Your task to perform on an android device: add a contact in the contacts app Image 0: 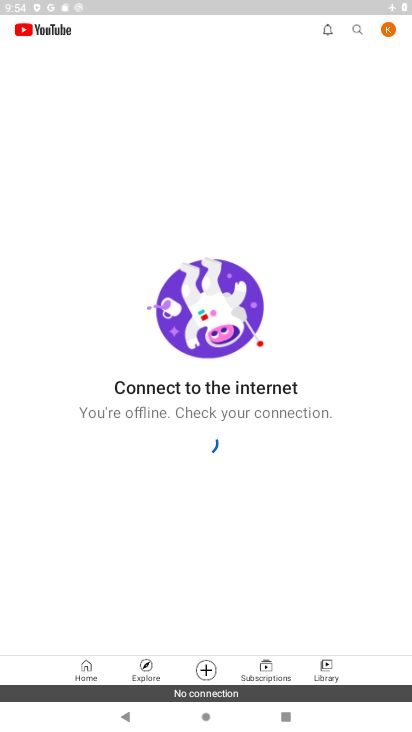
Step 0: click (277, 631)
Your task to perform on an android device: add a contact in the contacts app Image 1: 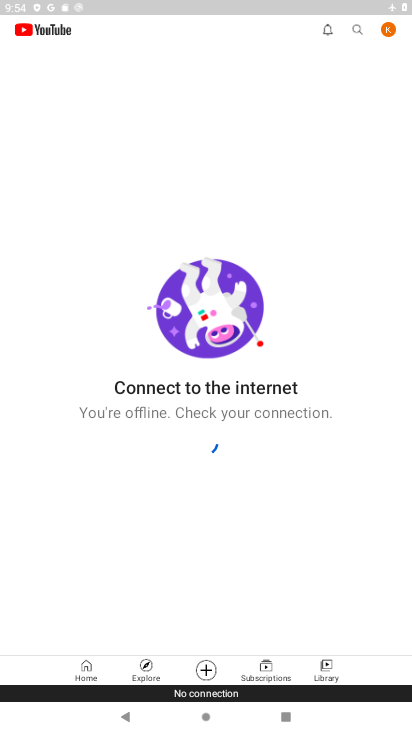
Step 1: press back button
Your task to perform on an android device: add a contact in the contacts app Image 2: 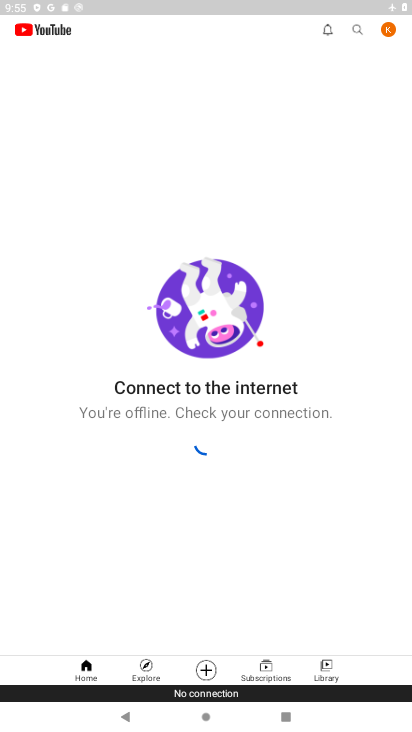
Step 2: press back button
Your task to perform on an android device: add a contact in the contacts app Image 3: 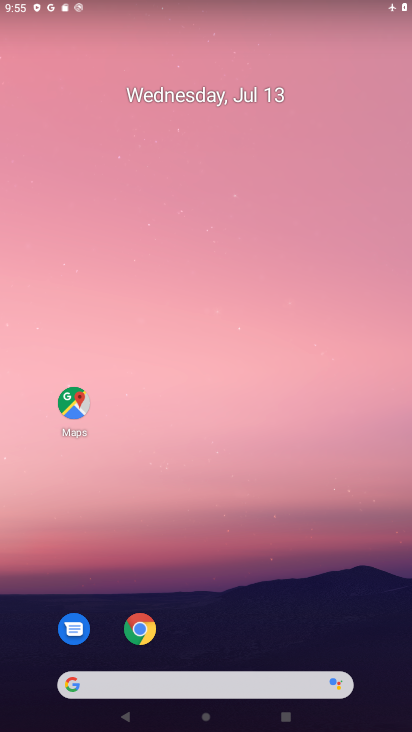
Step 3: drag from (274, 632) to (272, 78)
Your task to perform on an android device: add a contact in the contacts app Image 4: 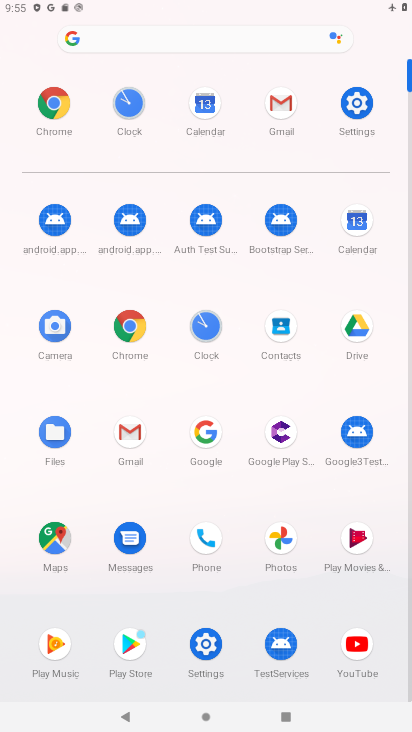
Step 4: click (351, 231)
Your task to perform on an android device: add a contact in the contacts app Image 5: 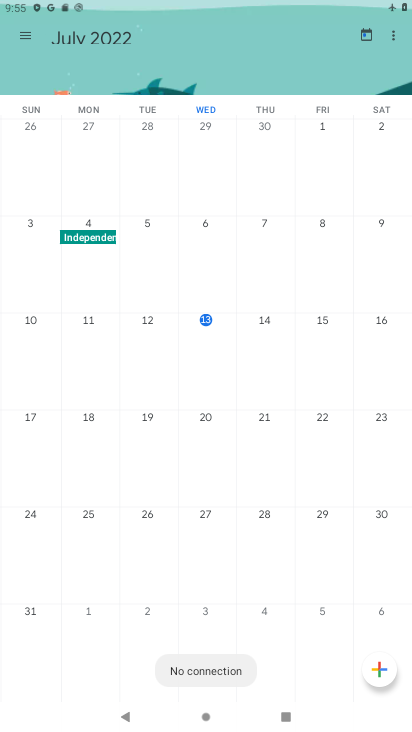
Step 5: press back button
Your task to perform on an android device: add a contact in the contacts app Image 6: 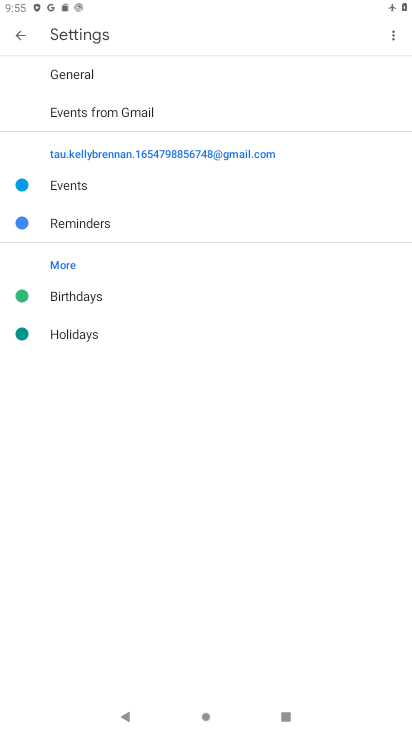
Step 6: press back button
Your task to perform on an android device: add a contact in the contacts app Image 7: 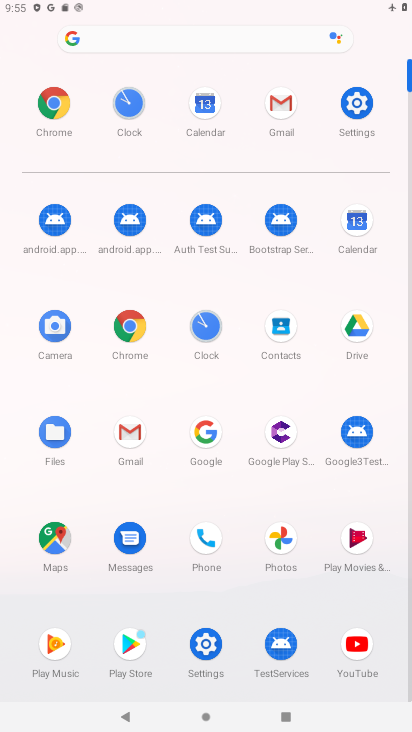
Step 7: click (267, 331)
Your task to perform on an android device: add a contact in the contacts app Image 8: 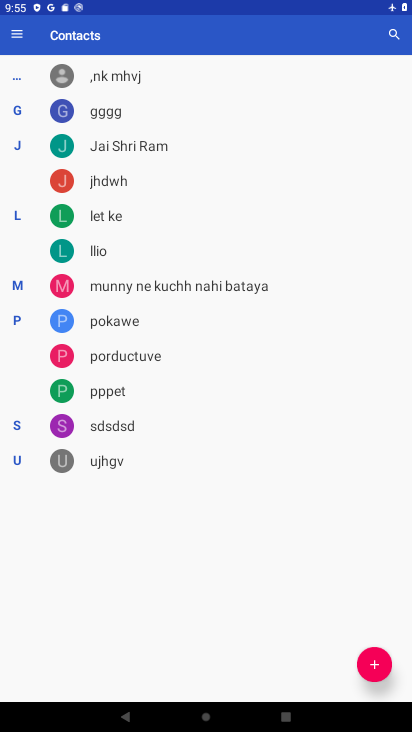
Step 8: click (371, 651)
Your task to perform on an android device: add a contact in the contacts app Image 9: 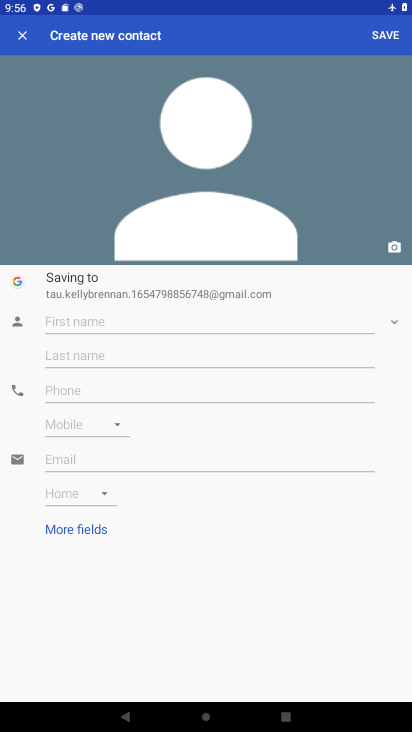
Step 9: click (197, 309)
Your task to perform on an android device: add a contact in the contacts app Image 10: 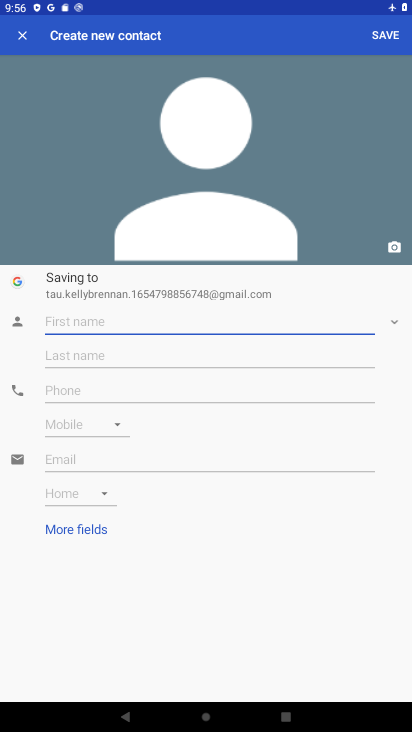
Step 10: click (206, 312)
Your task to perform on an android device: add a contact in the contacts app Image 11: 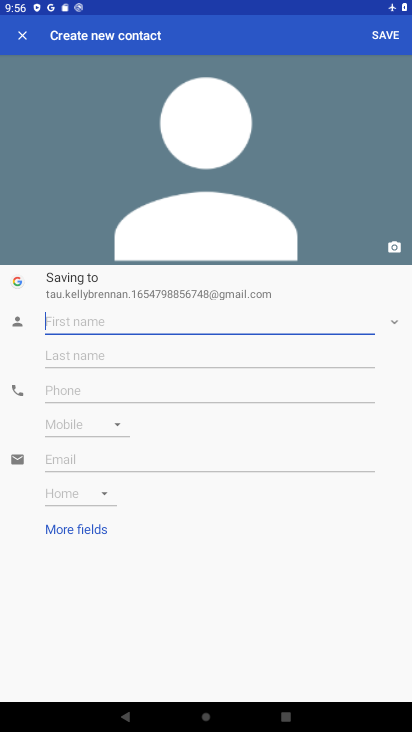
Step 11: type "johiuff"
Your task to perform on an android device: add a contact in the contacts app Image 12: 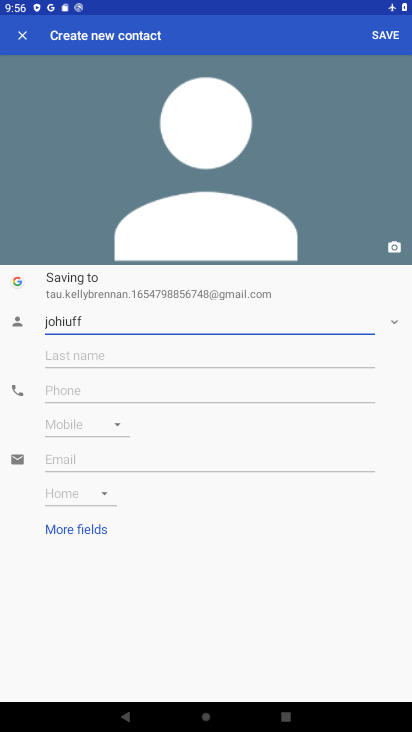
Step 12: click (105, 350)
Your task to perform on an android device: add a contact in the contacts app Image 13: 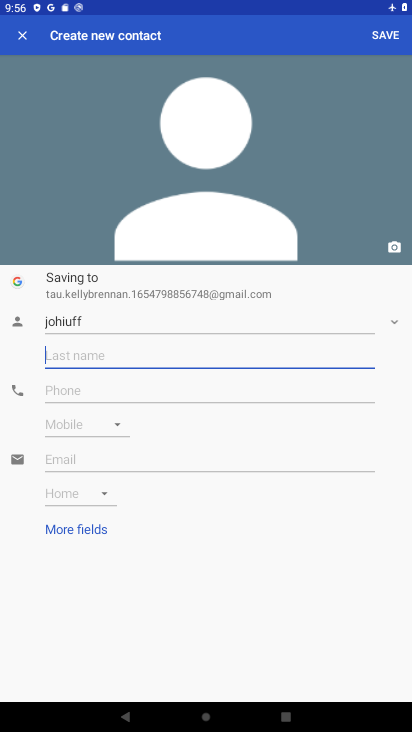
Step 13: type "gigifjfj"
Your task to perform on an android device: add a contact in the contacts app Image 14: 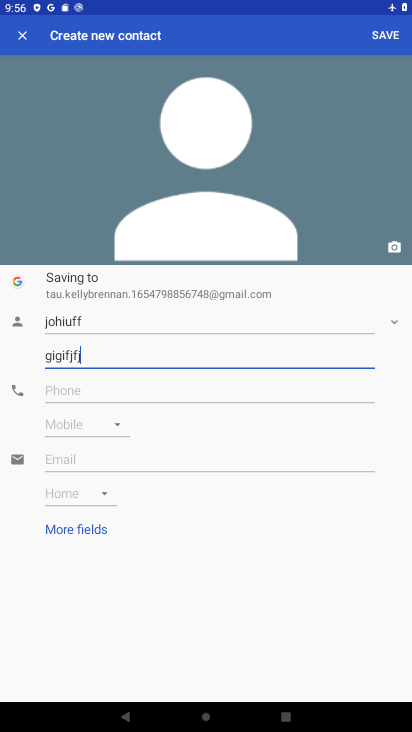
Step 14: click (200, 389)
Your task to perform on an android device: add a contact in the contacts app Image 15: 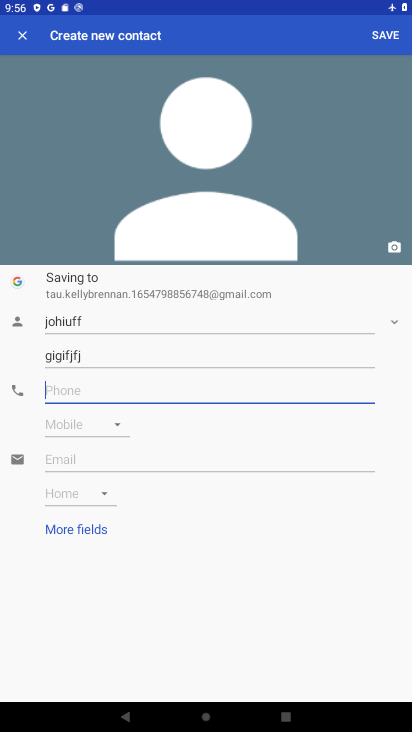
Step 15: type "88668754"
Your task to perform on an android device: add a contact in the contacts app Image 16: 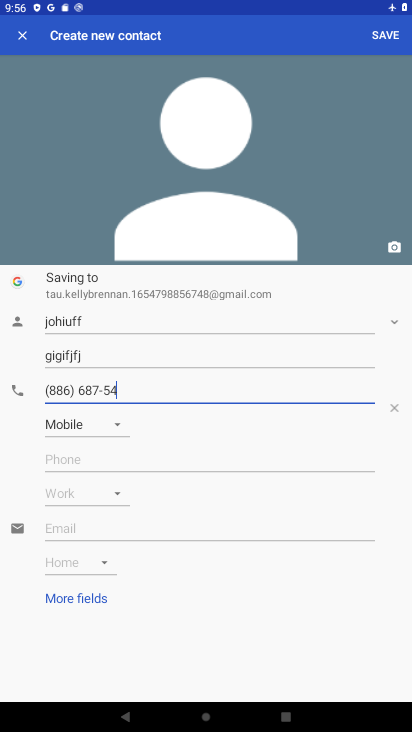
Step 16: click (384, 40)
Your task to perform on an android device: add a contact in the contacts app Image 17: 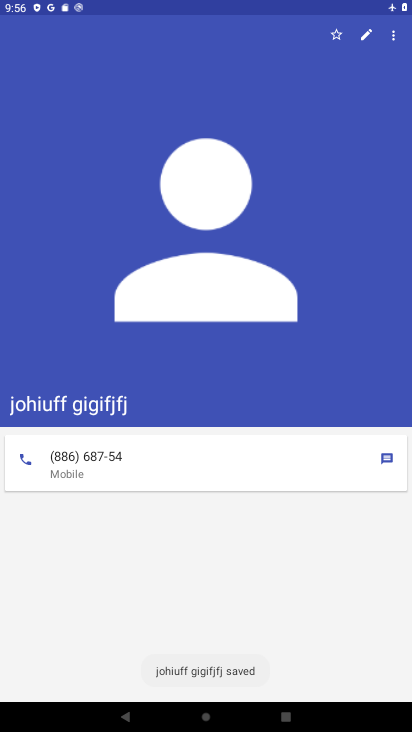
Step 17: task complete